Your task to perform on an android device: What is the recent news? Image 0: 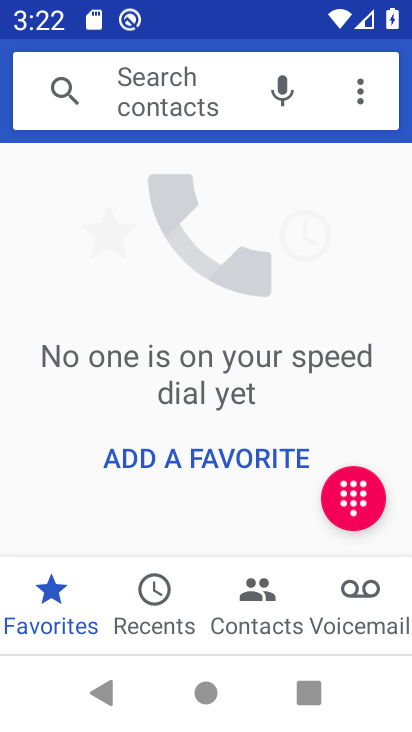
Step 0: drag from (347, 503) to (286, 272)
Your task to perform on an android device: What is the recent news? Image 1: 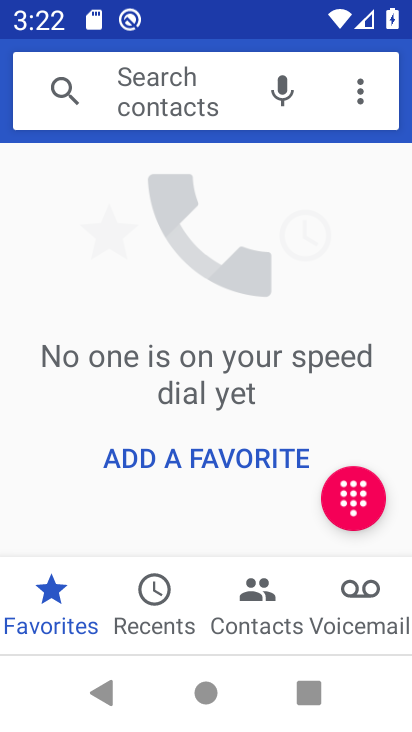
Step 1: press home button
Your task to perform on an android device: What is the recent news? Image 2: 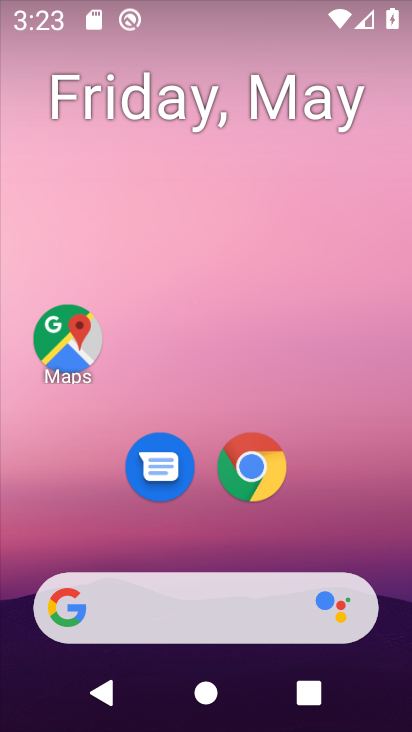
Step 2: drag from (319, 465) to (245, 162)
Your task to perform on an android device: What is the recent news? Image 3: 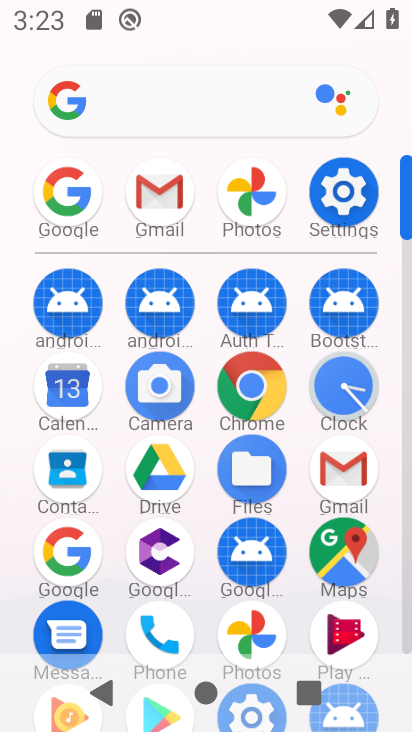
Step 3: click (46, 558)
Your task to perform on an android device: What is the recent news? Image 4: 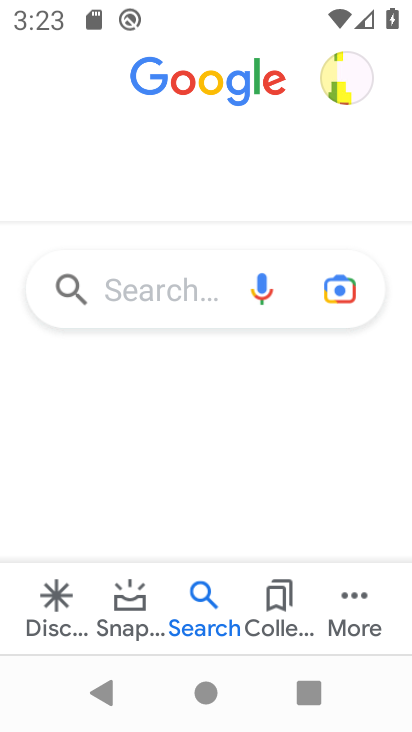
Step 4: click (144, 287)
Your task to perform on an android device: What is the recent news? Image 5: 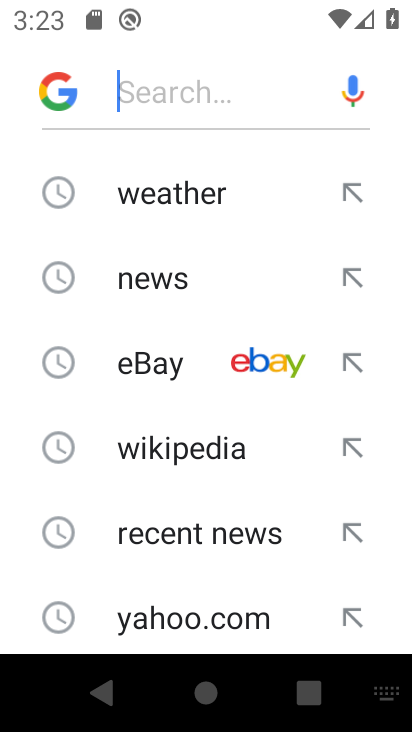
Step 5: click (150, 285)
Your task to perform on an android device: What is the recent news? Image 6: 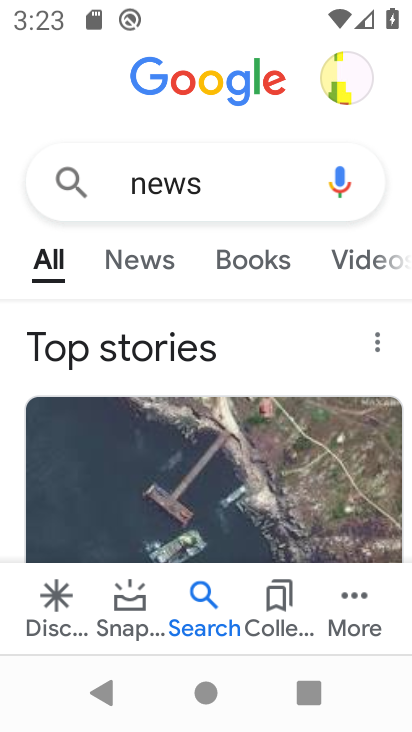
Step 6: task complete